Your task to perform on an android device: install app "Lyft - Rideshare, Bikes, Scooters & Transit" Image 0: 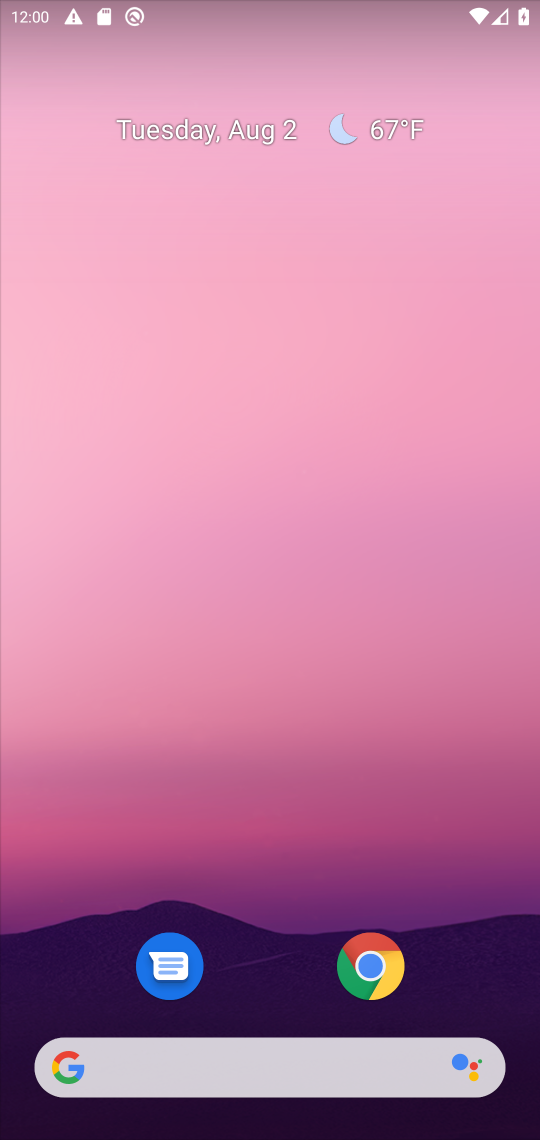
Step 0: press home button
Your task to perform on an android device: install app "Lyft - Rideshare, Bikes, Scooters & Transit" Image 1: 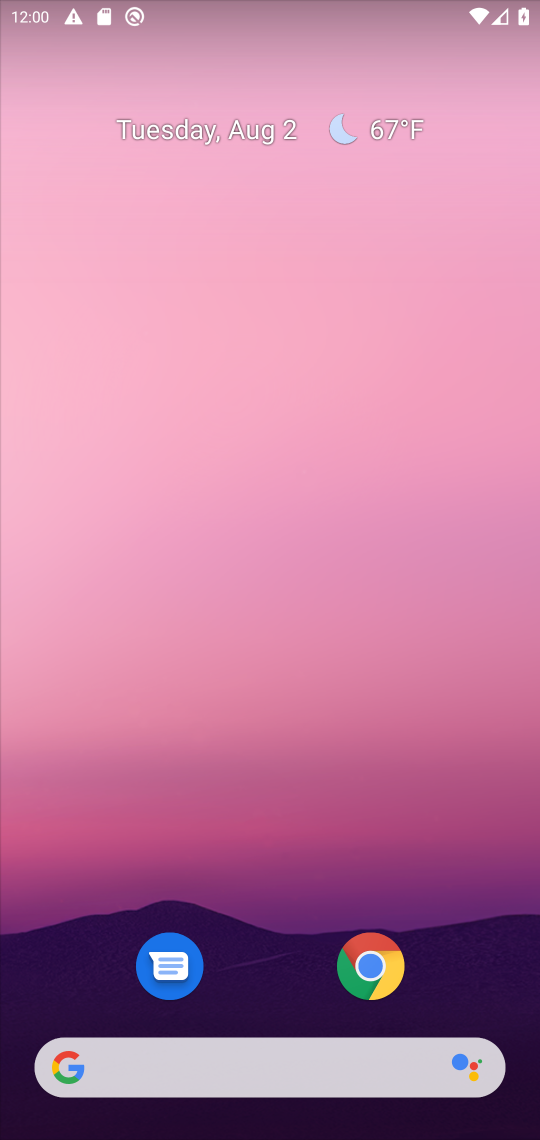
Step 1: drag from (456, 907) to (426, 61)
Your task to perform on an android device: install app "Lyft - Rideshare, Bikes, Scooters & Transit" Image 2: 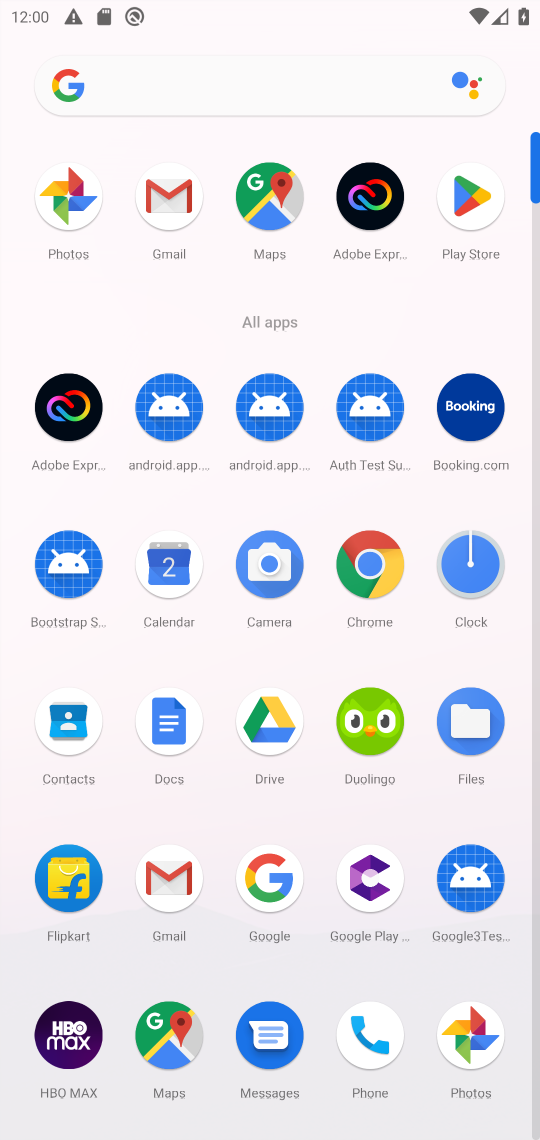
Step 2: click (468, 197)
Your task to perform on an android device: install app "Lyft - Rideshare, Bikes, Scooters & Transit" Image 3: 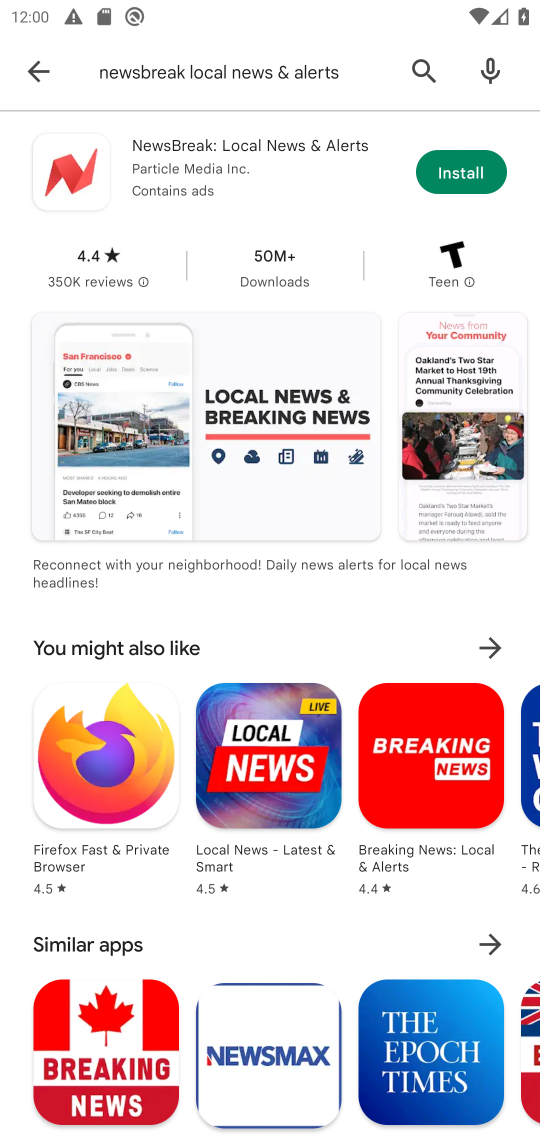
Step 3: click (415, 65)
Your task to perform on an android device: install app "Lyft - Rideshare, Bikes, Scooters & Transit" Image 4: 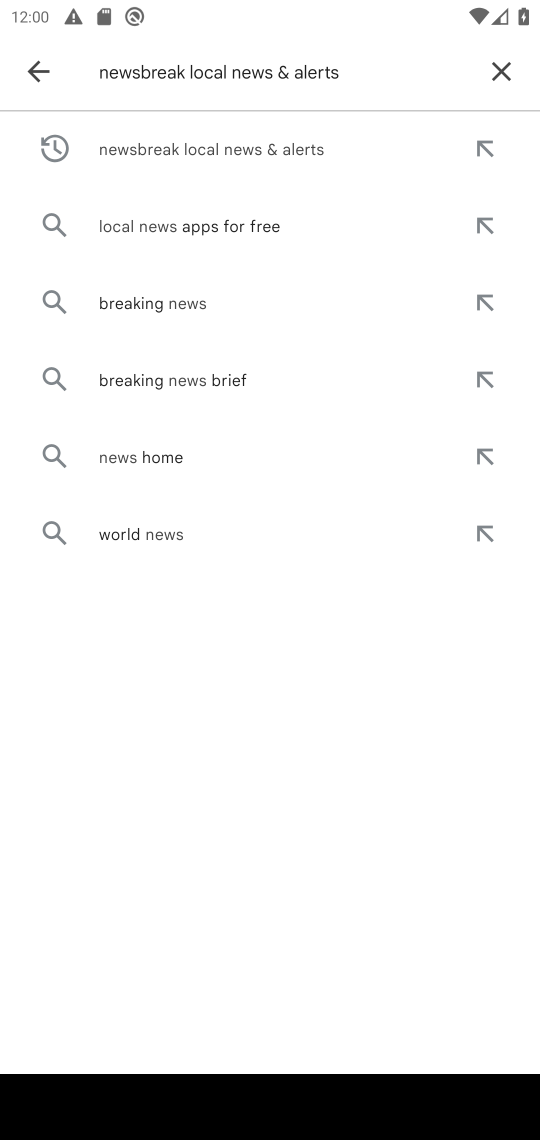
Step 4: click (484, 61)
Your task to perform on an android device: install app "Lyft - Rideshare, Bikes, Scooters & Transit" Image 5: 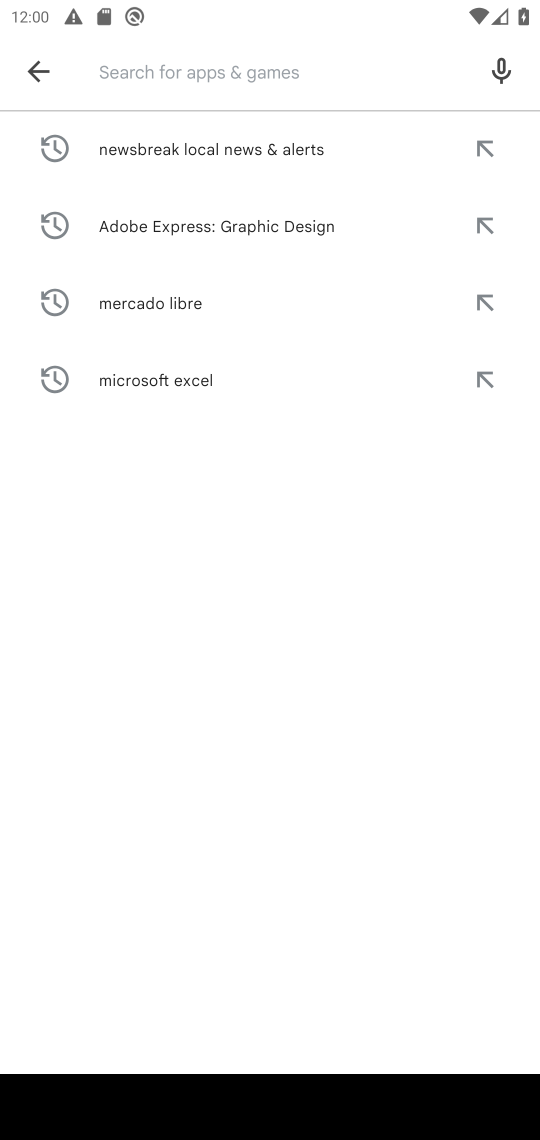
Step 5: type "Lyft - Rideshare, Bikes, Scooters & Transit"
Your task to perform on an android device: install app "Lyft - Rideshare, Bikes, Scooters & Transit" Image 6: 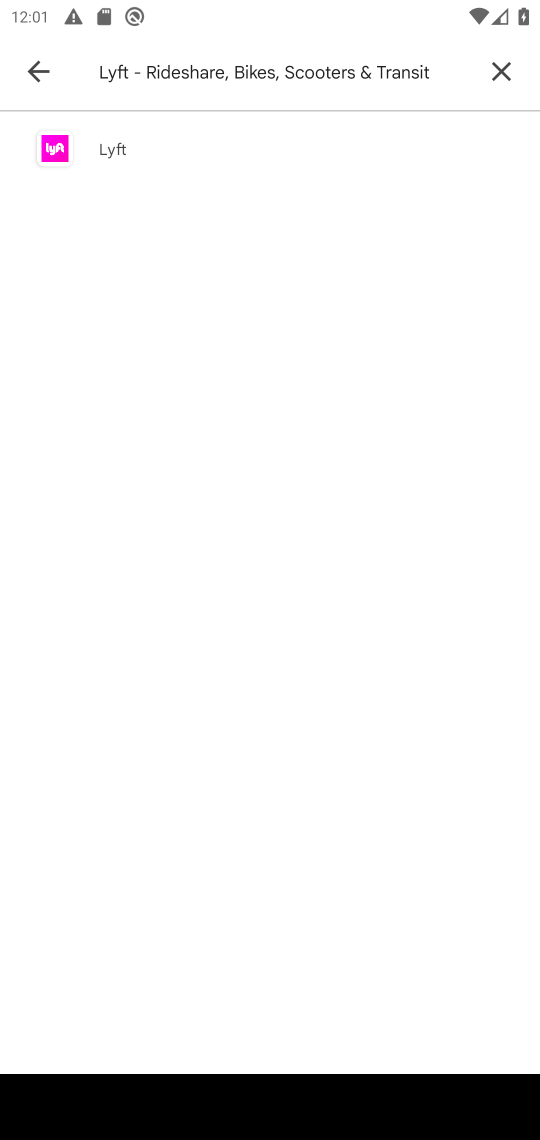
Step 6: click (141, 143)
Your task to perform on an android device: install app "Lyft - Rideshare, Bikes, Scooters & Transit" Image 7: 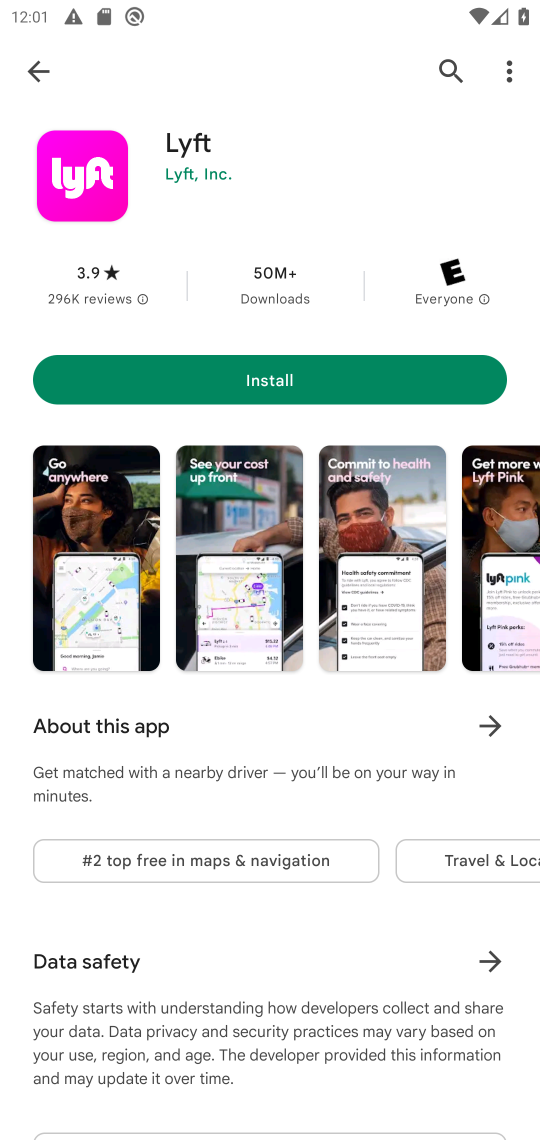
Step 7: click (348, 391)
Your task to perform on an android device: install app "Lyft - Rideshare, Bikes, Scooters & Transit" Image 8: 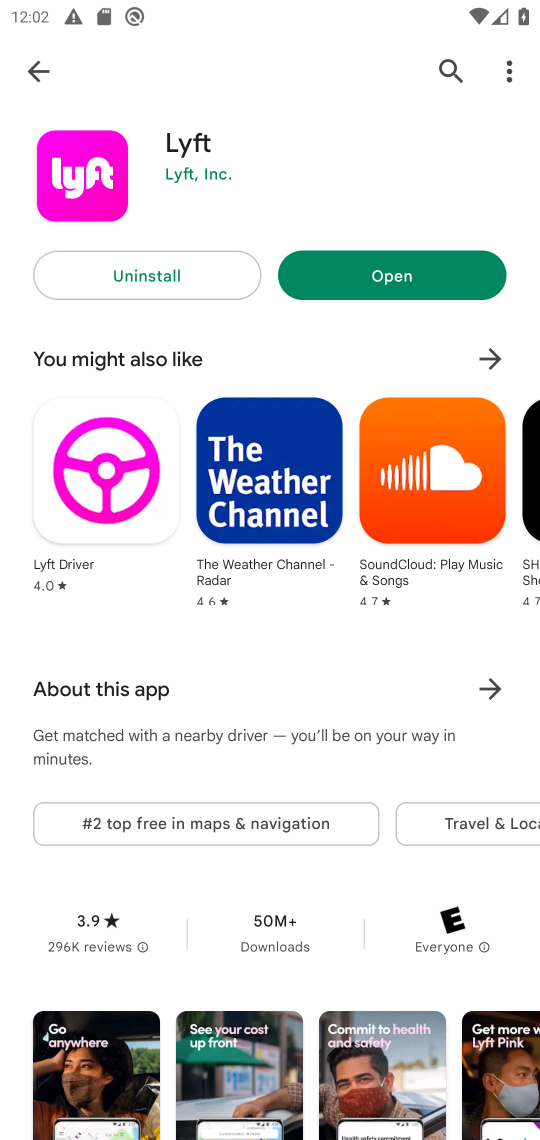
Step 8: task complete